Your task to perform on an android device: Open Amazon Image 0: 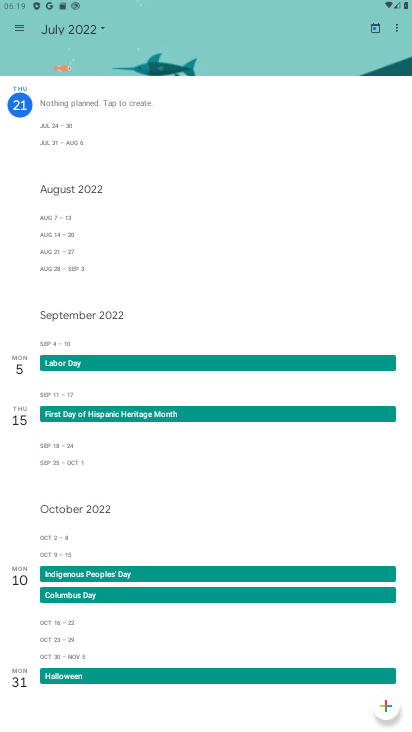
Step 0: press home button
Your task to perform on an android device: Open Amazon Image 1: 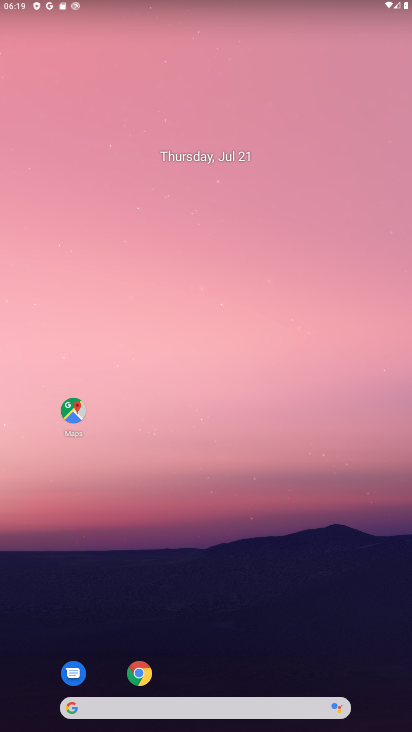
Step 1: click (136, 674)
Your task to perform on an android device: Open Amazon Image 2: 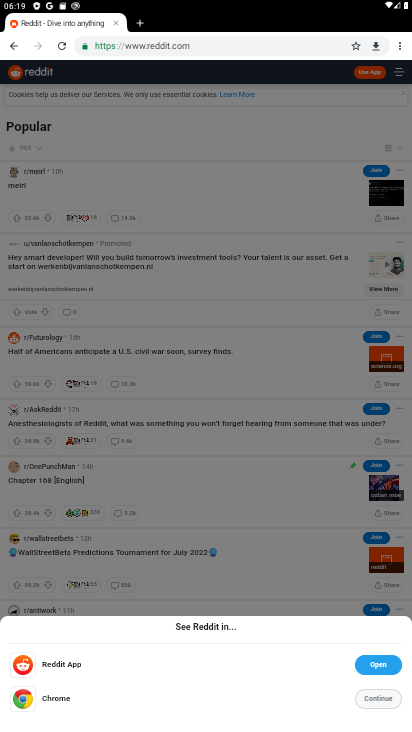
Step 2: click (198, 31)
Your task to perform on an android device: Open Amazon Image 3: 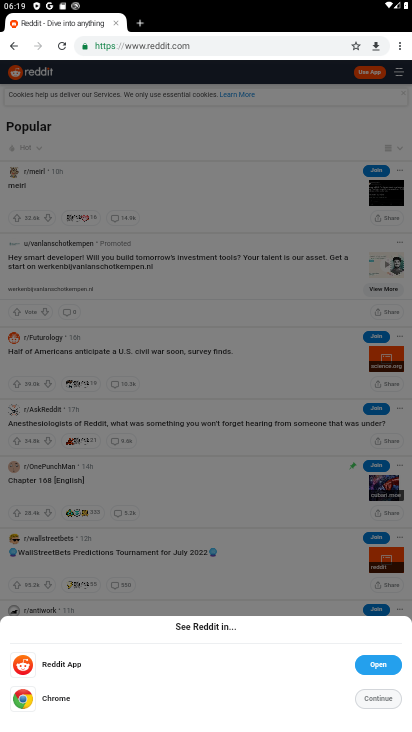
Step 3: click (186, 46)
Your task to perform on an android device: Open Amazon Image 4: 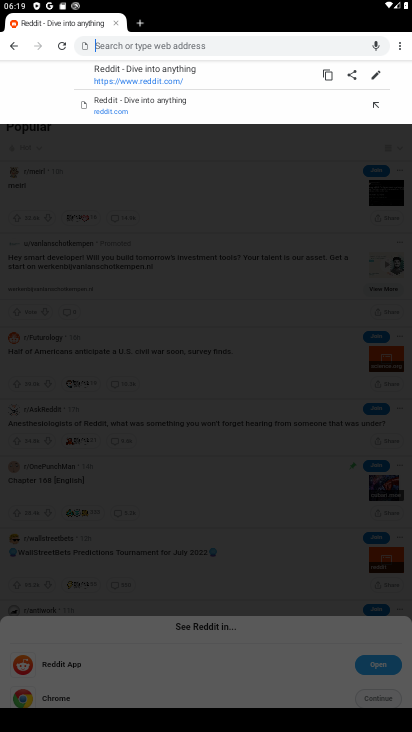
Step 4: type "www.amazon.com"
Your task to perform on an android device: Open Amazon Image 5: 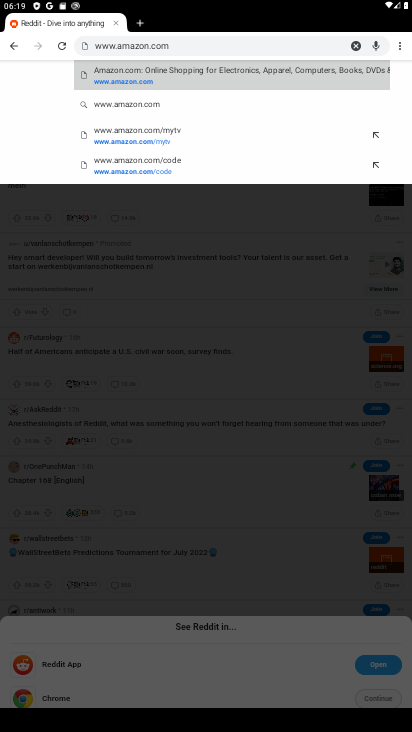
Step 5: click (114, 80)
Your task to perform on an android device: Open Amazon Image 6: 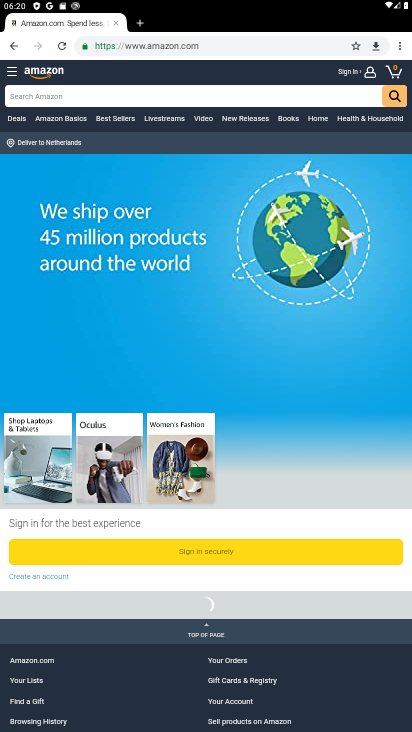
Step 6: task complete